Your task to perform on an android device: toggle airplane mode Image 0: 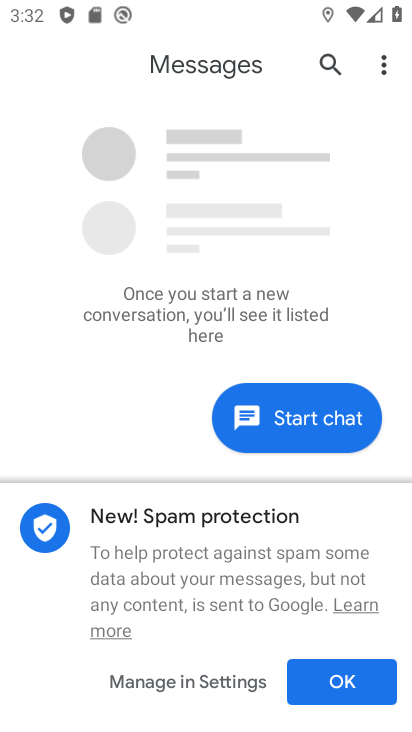
Step 0: press home button
Your task to perform on an android device: toggle airplane mode Image 1: 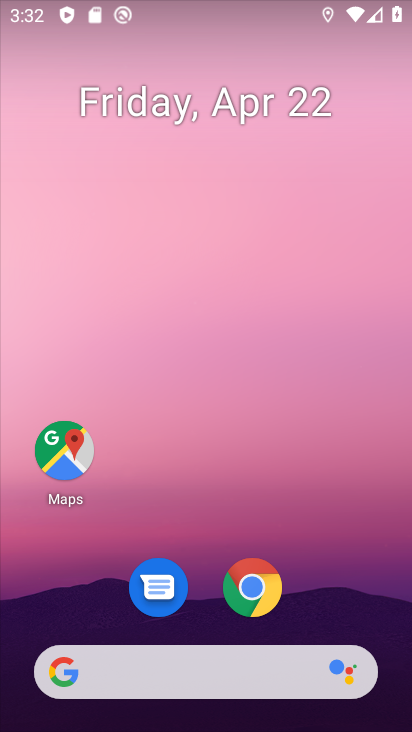
Step 1: drag from (335, 561) to (375, 13)
Your task to perform on an android device: toggle airplane mode Image 2: 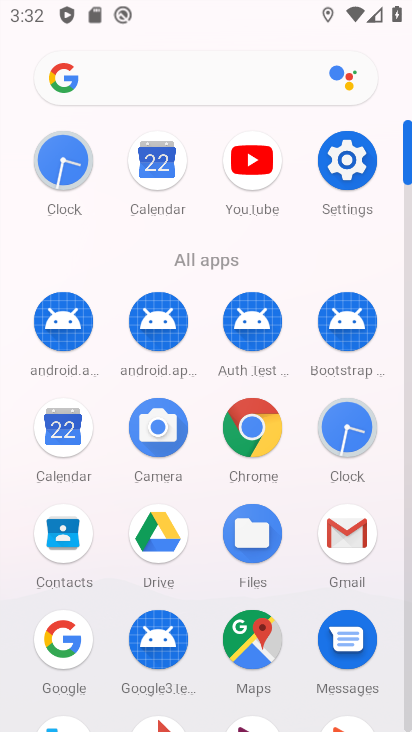
Step 2: click (349, 161)
Your task to perform on an android device: toggle airplane mode Image 3: 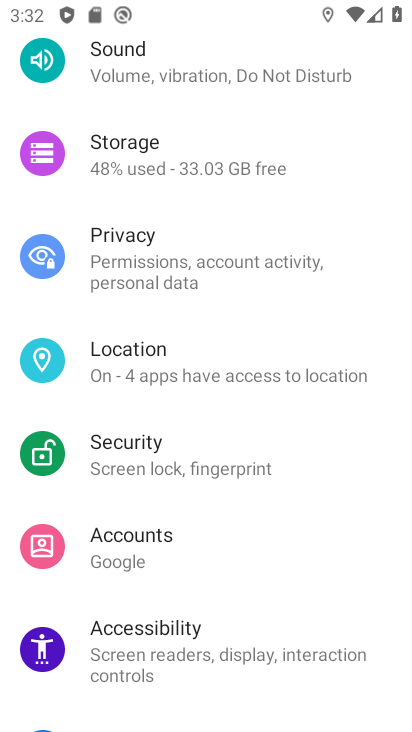
Step 3: drag from (257, 217) to (268, 356)
Your task to perform on an android device: toggle airplane mode Image 4: 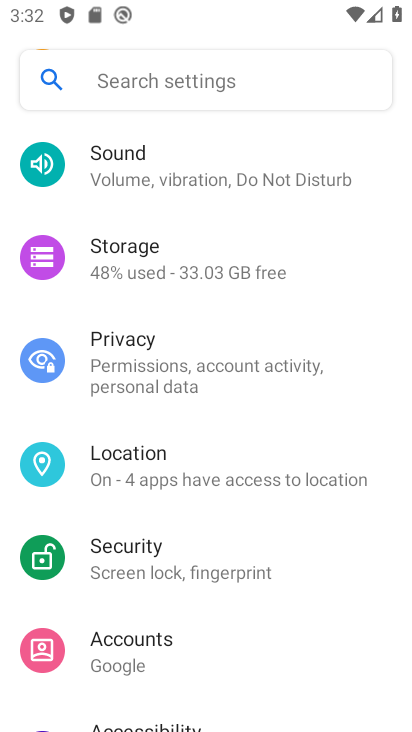
Step 4: drag from (255, 227) to (253, 377)
Your task to perform on an android device: toggle airplane mode Image 5: 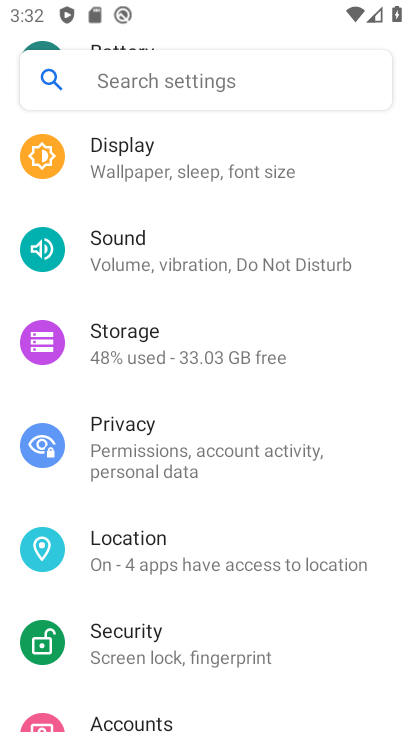
Step 5: drag from (225, 225) to (248, 390)
Your task to perform on an android device: toggle airplane mode Image 6: 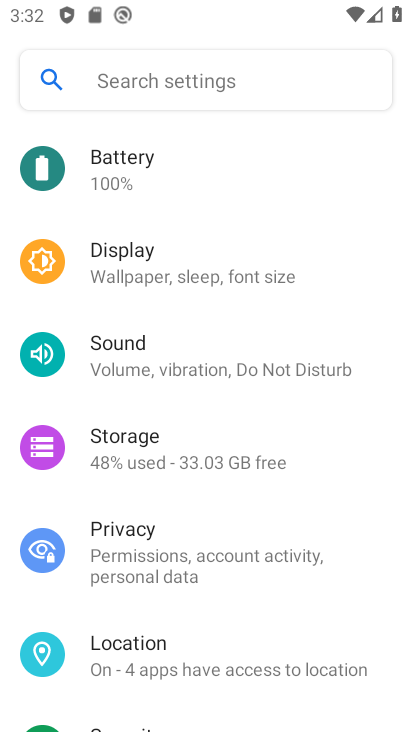
Step 6: drag from (208, 273) to (211, 375)
Your task to perform on an android device: toggle airplane mode Image 7: 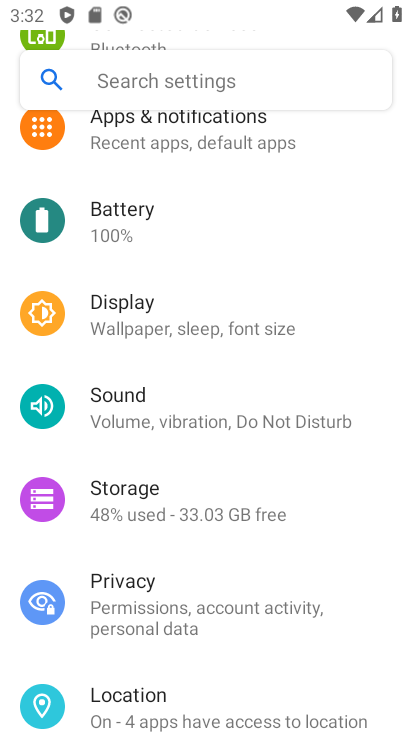
Step 7: drag from (225, 198) to (239, 356)
Your task to perform on an android device: toggle airplane mode Image 8: 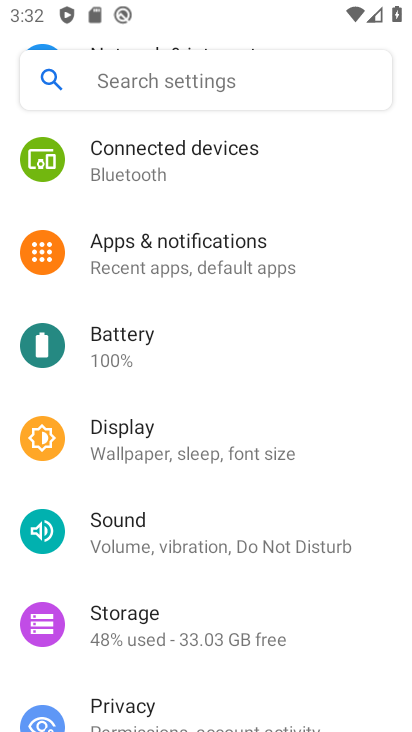
Step 8: drag from (226, 226) to (250, 400)
Your task to perform on an android device: toggle airplane mode Image 9: 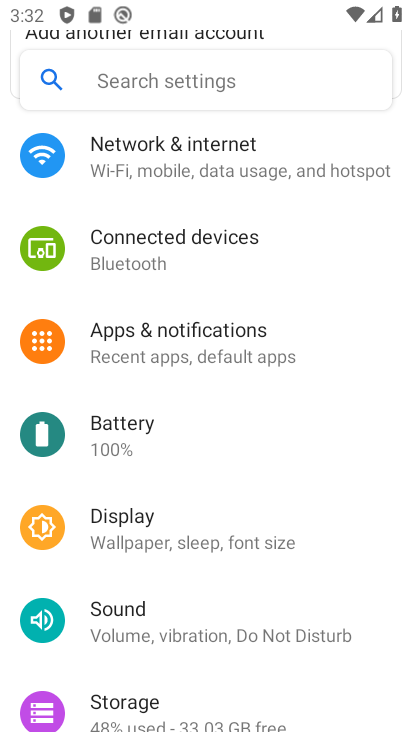
Step 9: click (235, 152)
Your task to perform on an android device: toggle airplane mode Image 10: 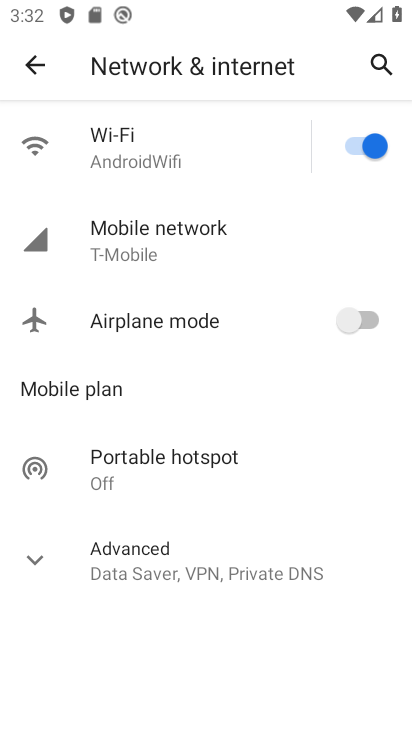
Step 10: click (341, 323)
Your task to perform on an android device: toggle airplane mode Image 11: 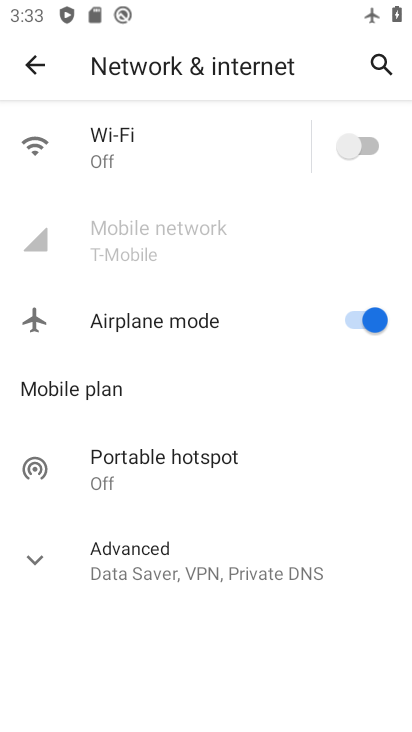
Step 11: task complete